Your task to perform on an android device: toggle pop-ups in chrome Image 0: 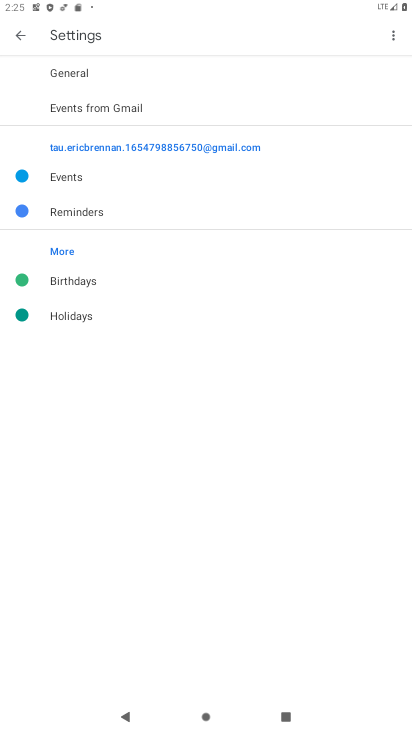
Step 0: press home button
Your task to perform on an android device: toggle pop-ups in chrome Image 1: 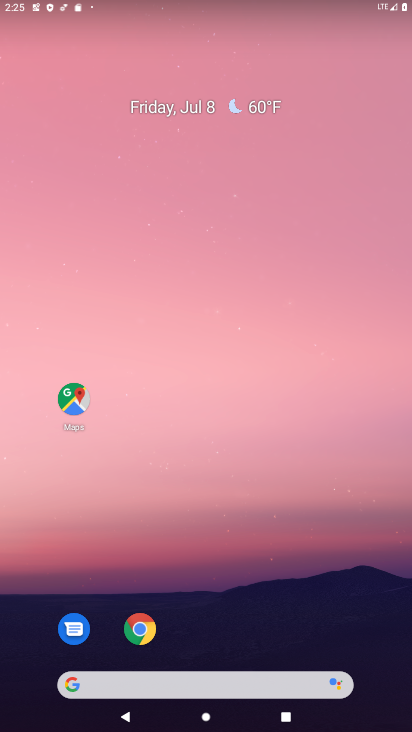
Step 1: click (156, 624)
Your task to perform on an android device: toggle pop-ups in chrome Image 2: 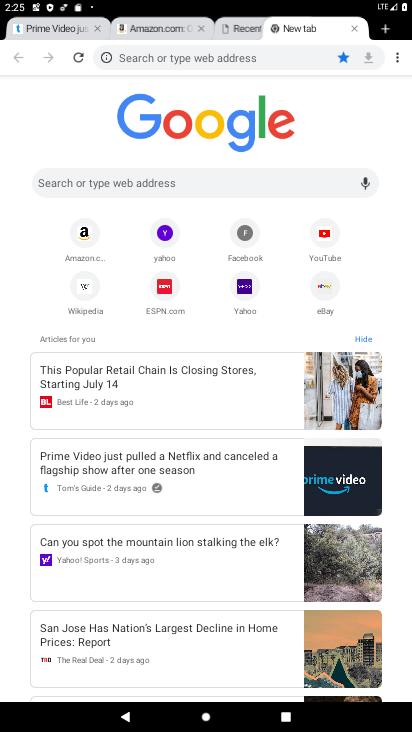
Step 2: click (391, 57)
Your task to perform on an android device: toggle pop-ups in chrome Image 3: 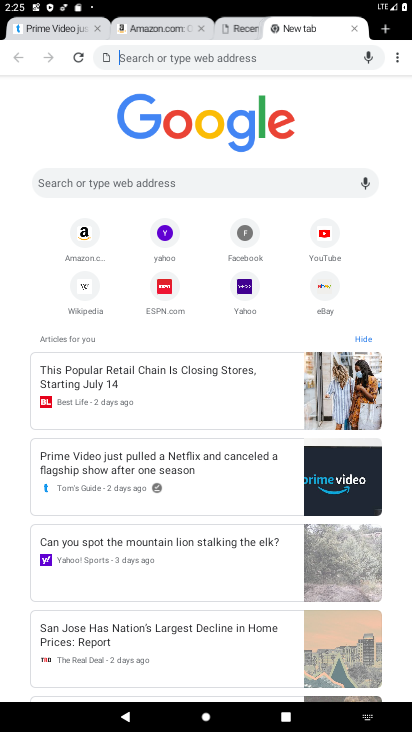
Step 3: drag from (392, 58) to (274, 269)
Your task to perform on an android device: toggle pop-ups in chrome Image 4: 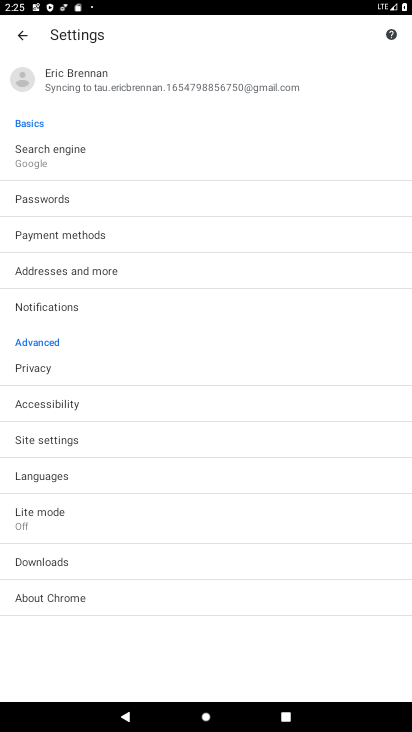
Step 4: click (79, 436)
Your task to perform on an android device: toggle pop-ups in chrome Image 5: 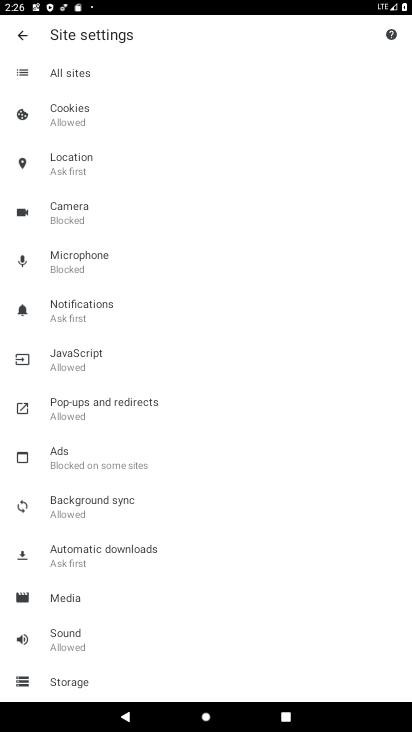
Step 5: click (141, 396)
Your task to perform on an android device: toggle pop-ups in chrome Image 6: 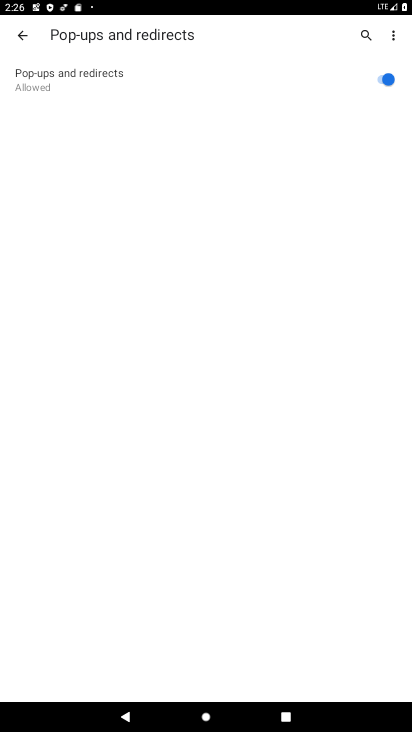
Step 6: task complete